Your task to perform on an android device: manage bookmarks in the chrome app Image 0: 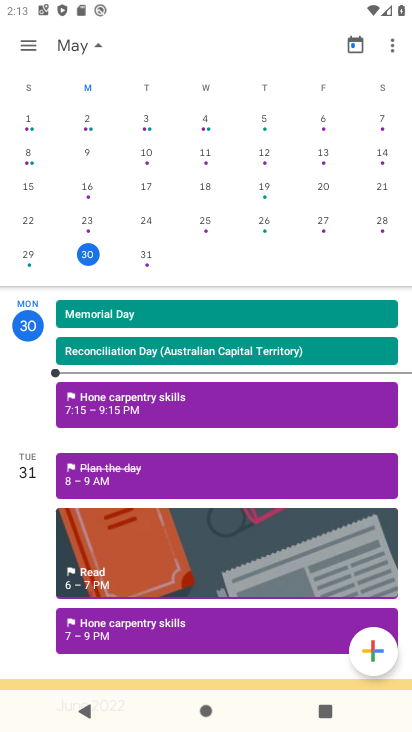
Step 0: press home button
Your task to perform on an android device: manage bookmarks in the chrome app Image 1: 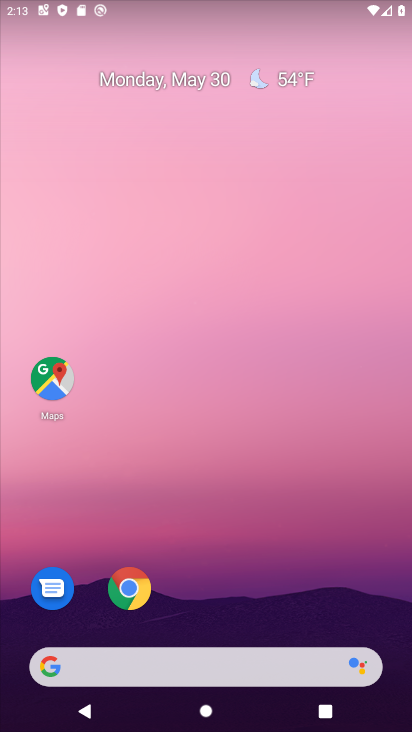
Step 1: click (133, 587)
Your task to perform on an android device: manage bookmarks in the chrome app Image 2: 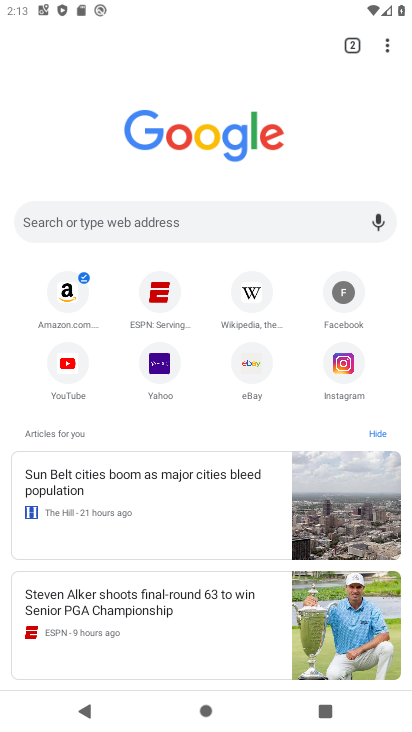
Step 2: click (377, 48)
Your task to perform on an android device: manage bookmarks in the chrome app Image 3: 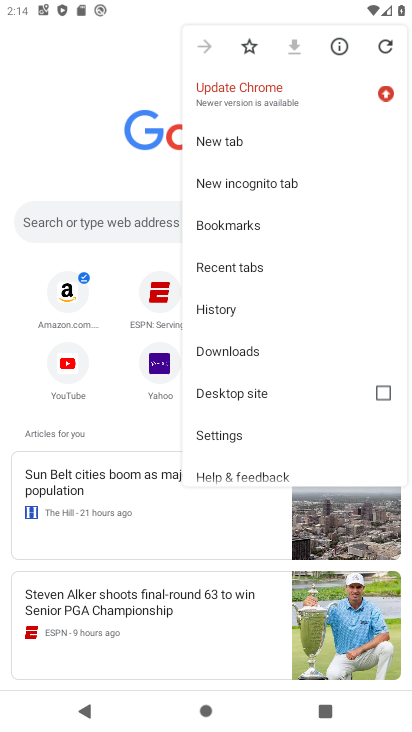
Step 3: click (228, 231)
Your task to perform on an android device: manage bookmarks in the chrome app Image 4: 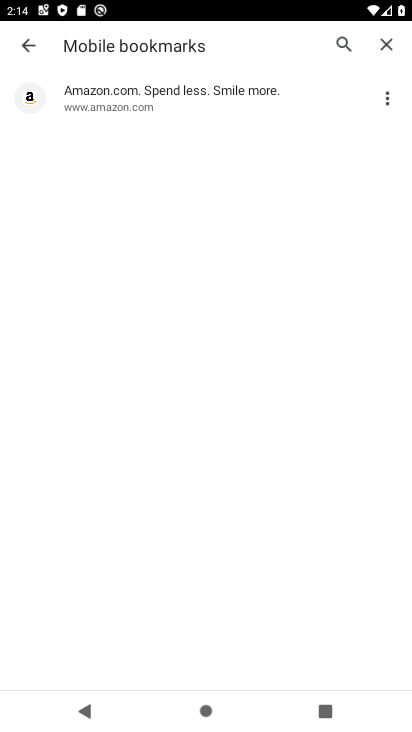
Step 4: click (383, 97)
Your task to perform on an android device: manage bookmarks in the chrome app Image 5: 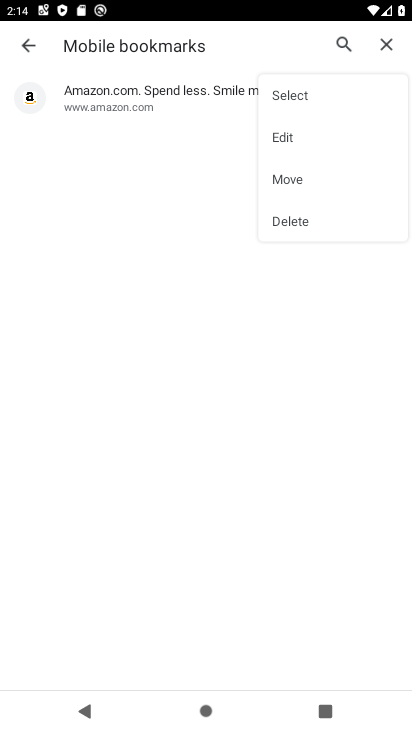
Step 5: click (285, 212)
Your task to perform on an android device: manage bookmarks in the chrome app Image 6: 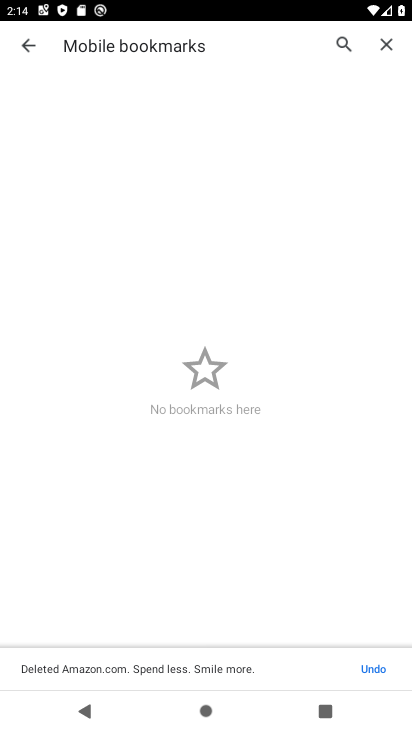
Step 6: task complete